Your task to perform on an android device: open chrome privacy settings Image 0: 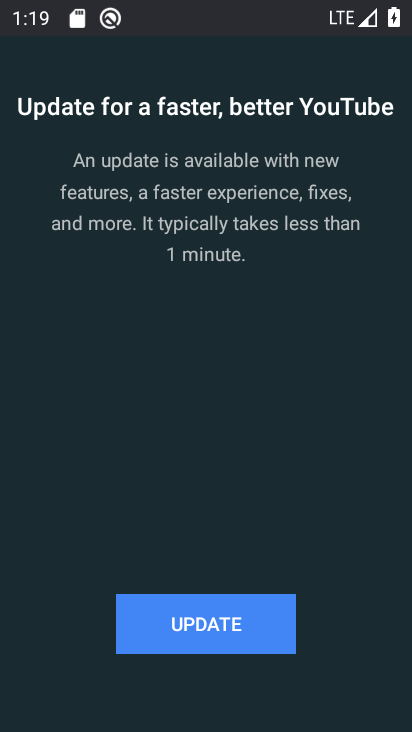
Step 0: press back button
Your task to perform on an android device: open chrome privacy settings Image 1: 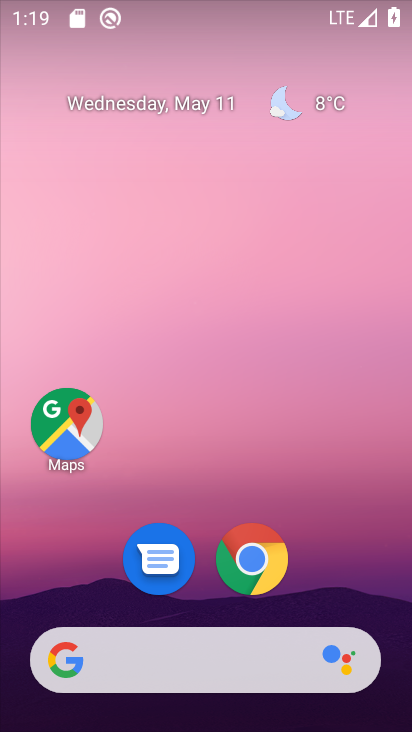
Step 1: click (253, 552)
Your task to perform on an android device: open chrome privacy settings Image 2: 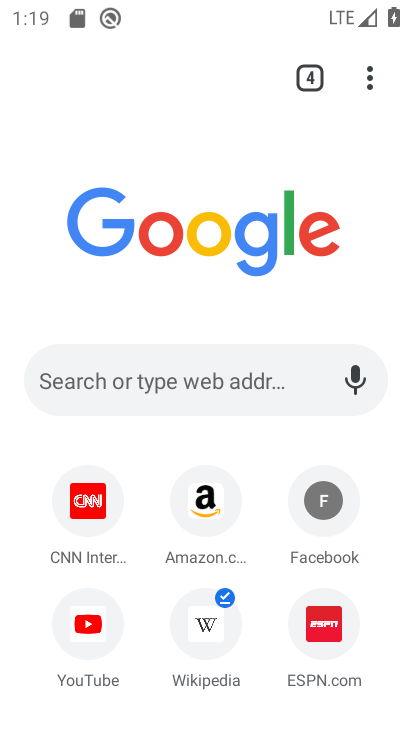
Step 2: click (371, 86)
Your task to perform on an android device: open chrome privacy settings Image 3: 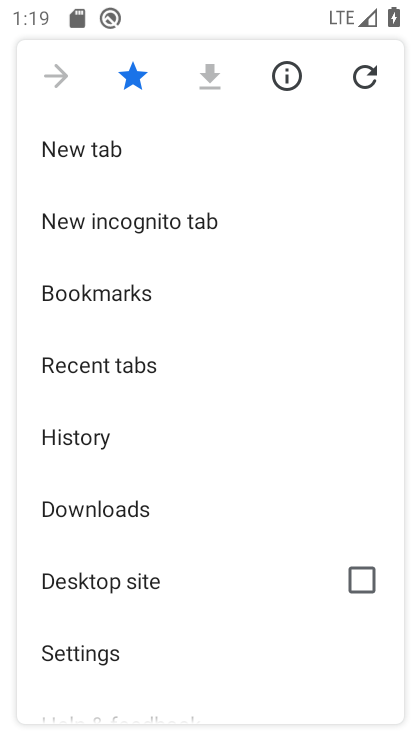
Step 3: drag from (133, 655) to (128, 293)
Your task to perform on an android device: open chrome privacy settings Image 4: 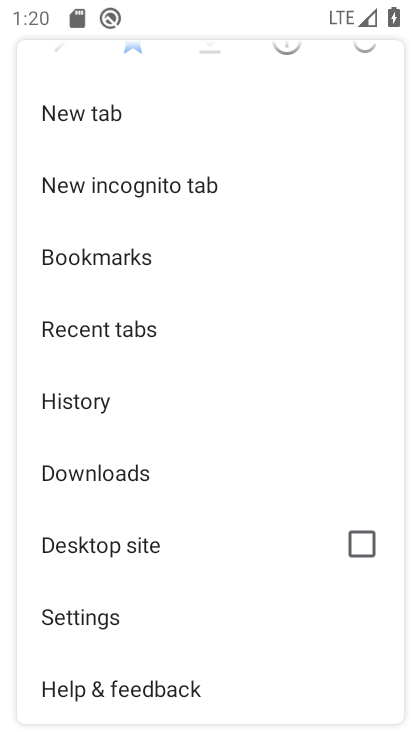
Step 4: click (100, 611)
Your task to perform on an android device: open chrome privacy settings Image 5: 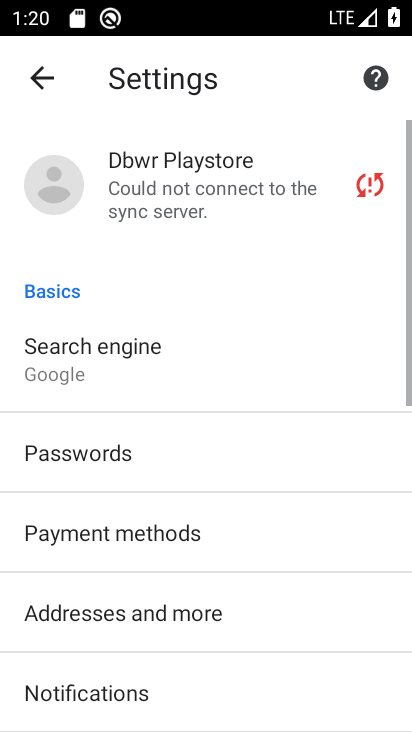
Step 5: drag from (127, 613) to (127, 308)
Your task to perform on an android device: open chrome privacy settings Image 6: 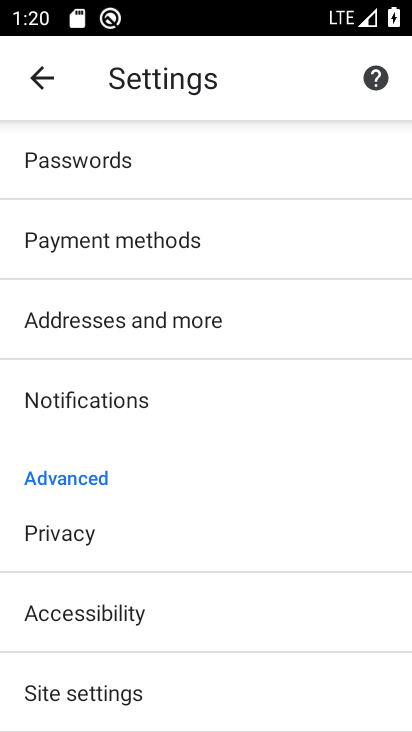
Step 6: click (89, 531)
Your task to perform on an android device: open chrome privacy settings Image 7: 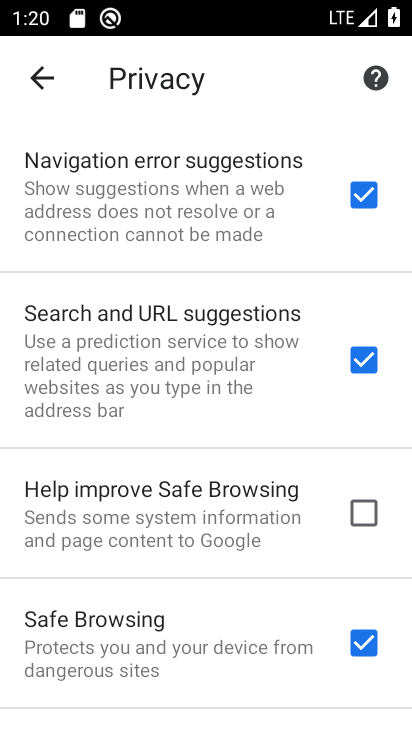
Step 7: task complete